Your task to perform on an android device: Is it going to rain this weekend? Image 0: 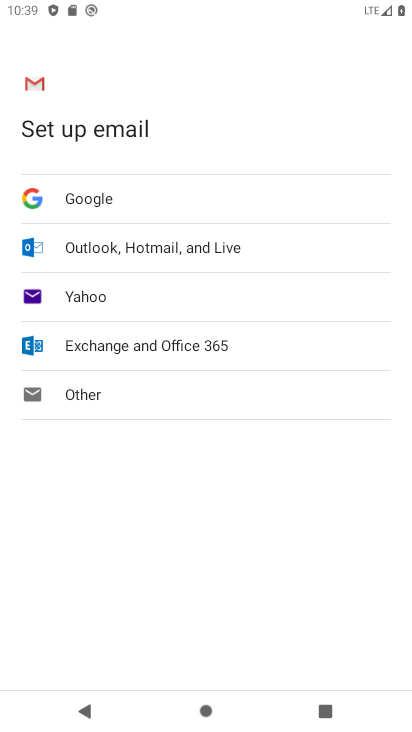
Step 0: press home button
Your task to perform on an android device: Is it going to rain this weekend? Image 1: 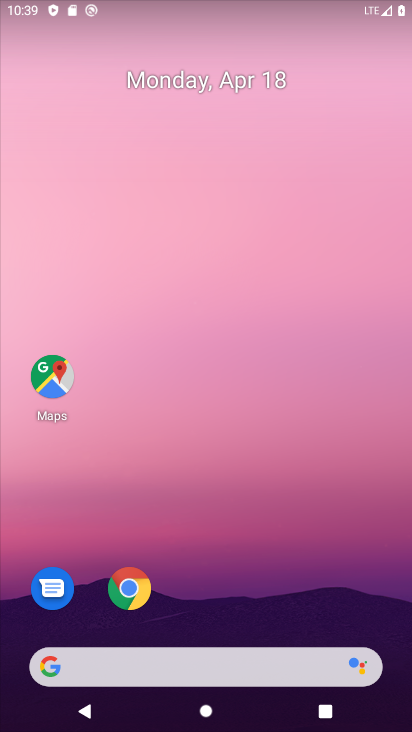
Step 1: drag from (9, 223) to (407, 227)
Your task to perform on an android device: Is it going to rain this weekend? Image 2: 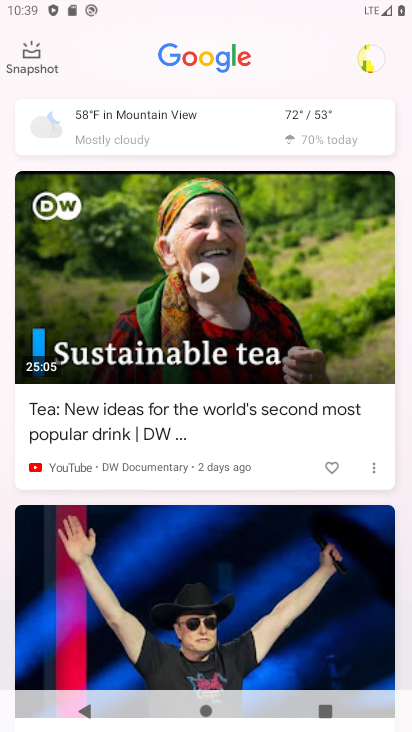
Step 2: click (180, 122)
Your task to perform on an android device: Is it going to rain this weekend? Image 3: 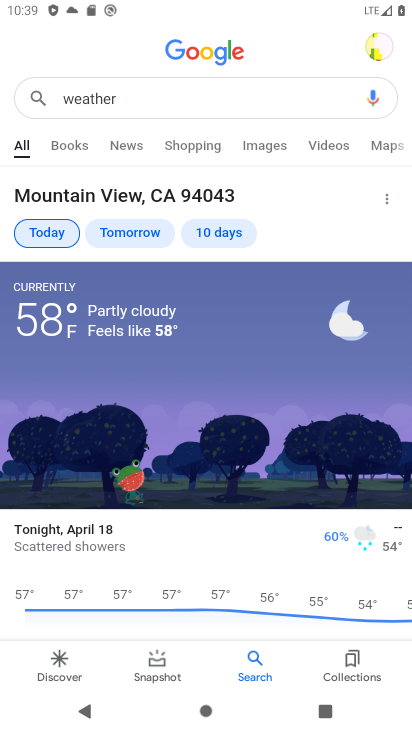
Step 3: click (218, 230)
Your task to perform on an android device: Is it going to rain this weekend? Image 4: 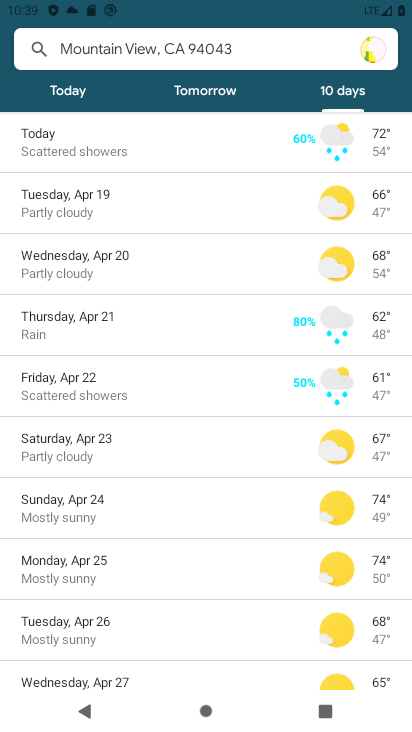
Step 4: task complete